Your task to perform on an android device: Go to privacy settings Image 0: 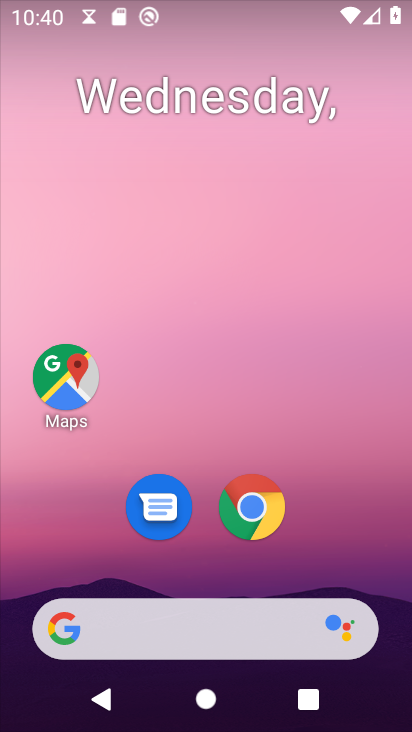
Step 0: drag from (249, 659) to (243, 295)
Your task to perform on an android device: Go to privacy settings Image 1: 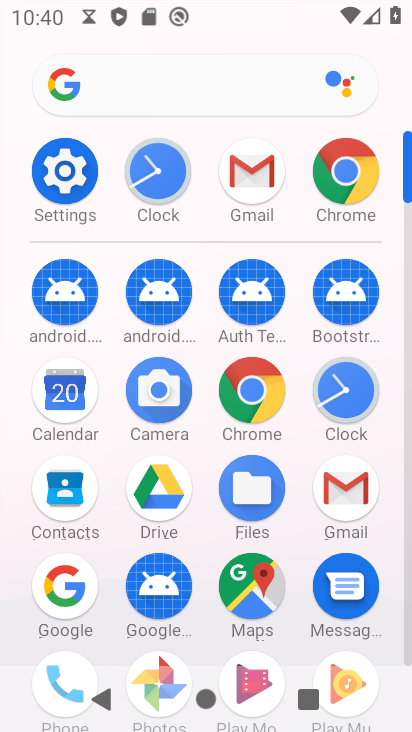
Step 1: click (64, 189)
Your task to perform on an android device: Go to privacy settings Image 2: 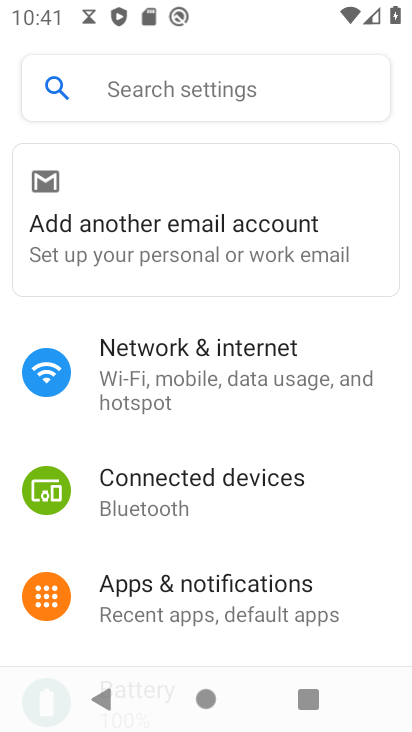
Step 2: drag from (205, 518) to (223, 225)
Your task to perform on an android device: Go to privacy settings Image 3: 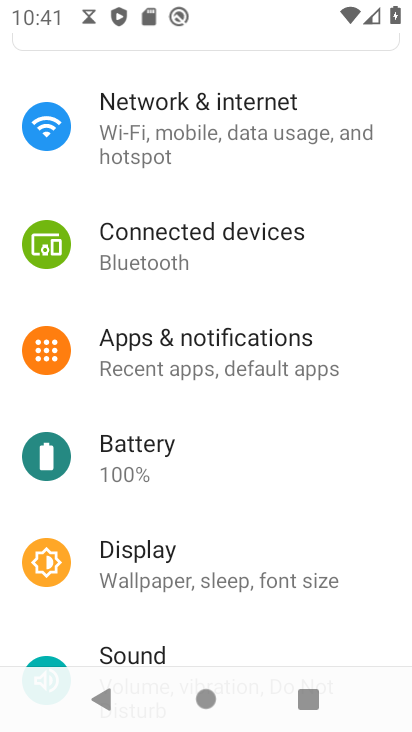
Step 3: drag from (147, 563) to (224, 269)
Your task to perform on an android device: Go to privacy settings Image 4: 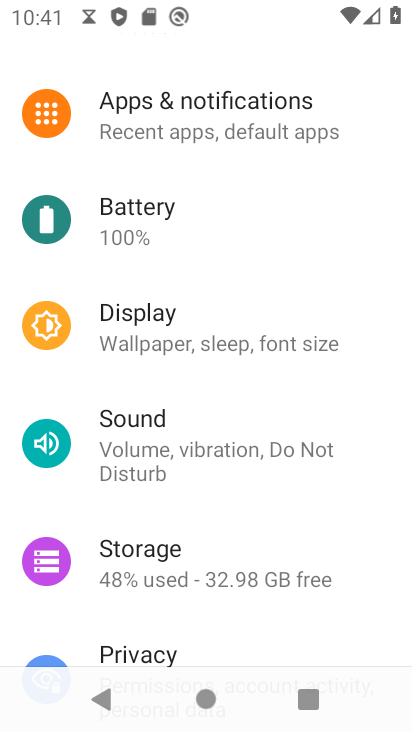
Step 4: drag from (50, 554) to (108, 303)
Your task to perform on an android device: Go to privacy settings Image 5: 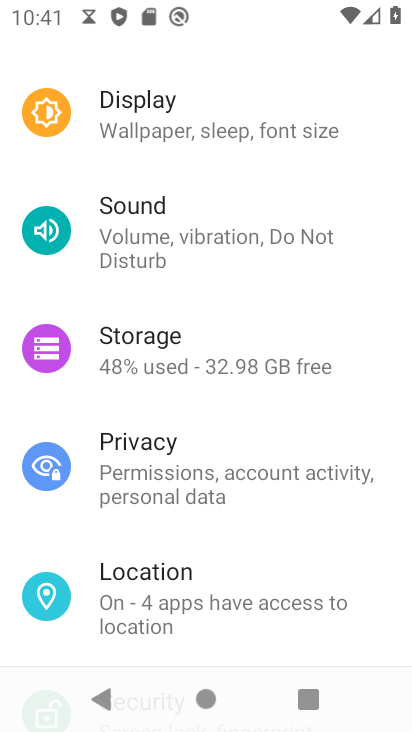
Step 5: click (160, 473)
Your task to perform on an android device: Go to privacy settings Image 6: 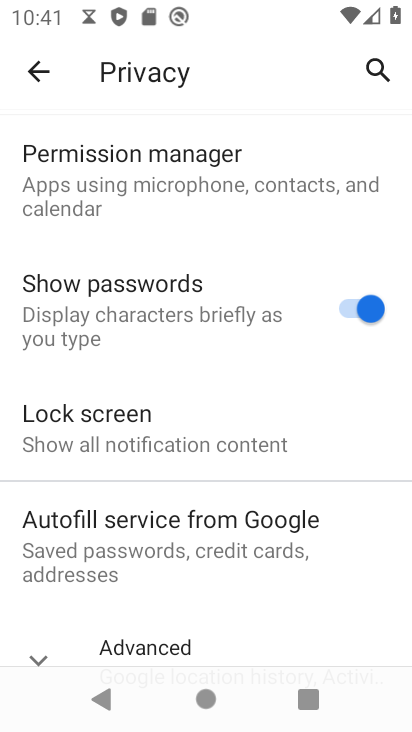
Step 6: task complete